Your task to perform on an android device: Open network settings Image 0: 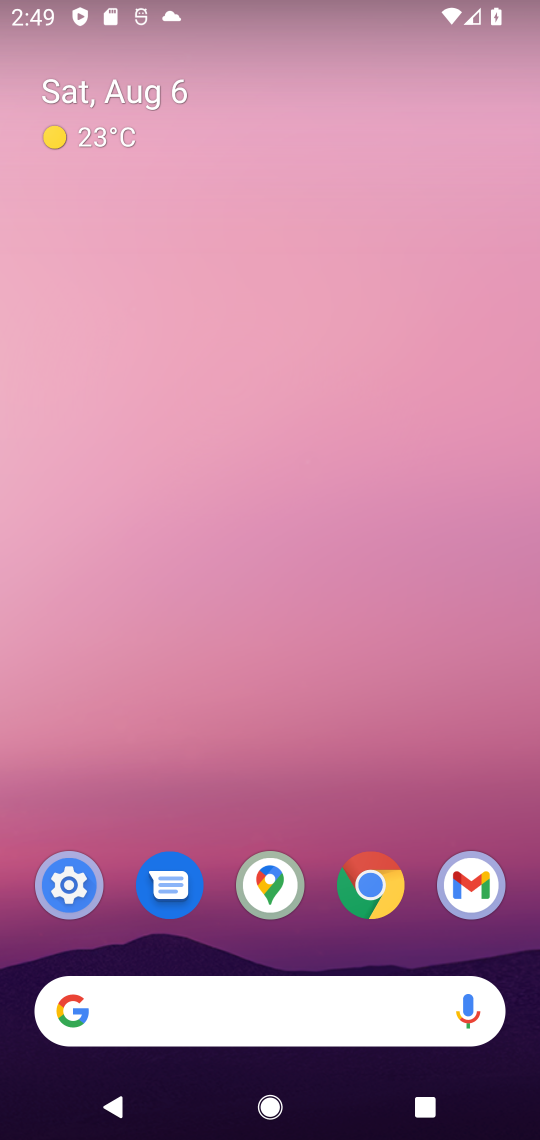
Step 0: drag from (438, 840) to (171, 10)
Your task to perform on an android device: Open network settings Image 1: 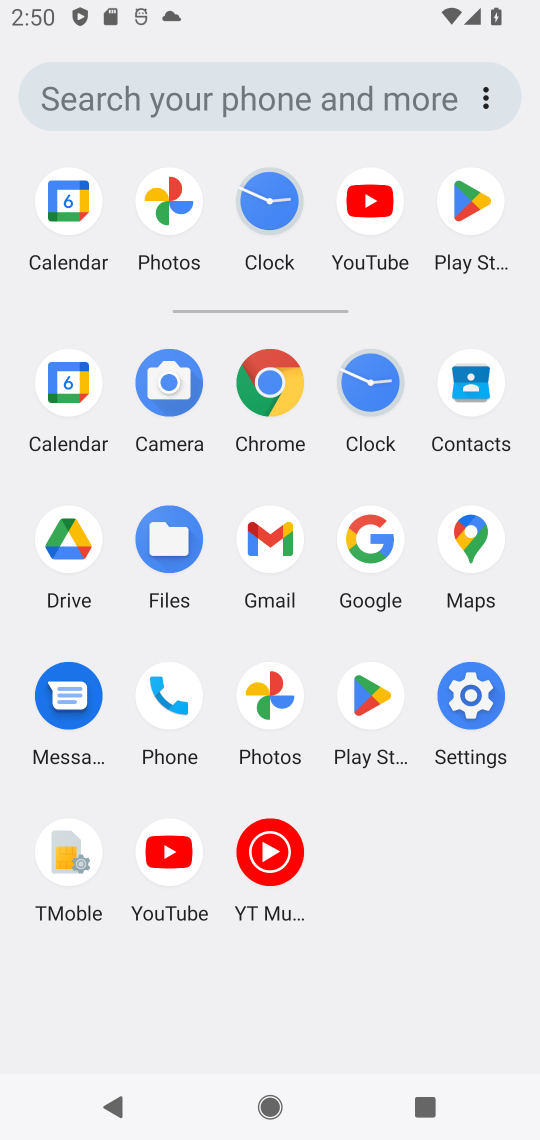
Step 1: click (468, 719)
Your task to perform on an android device: Open network settings Image 2: 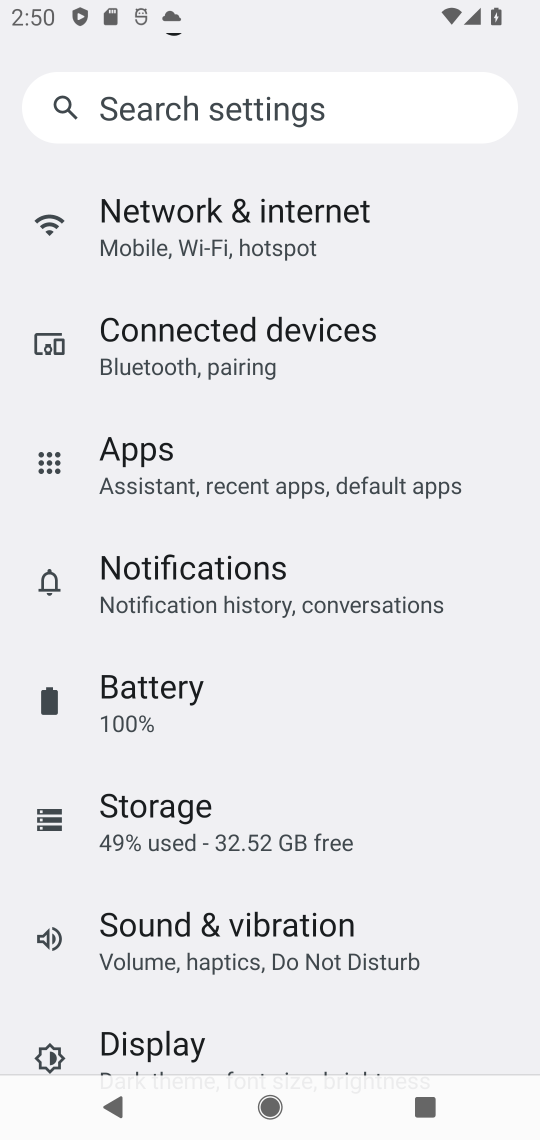
Step 2: click (249, 246)
Your task to perform on an android device: Open network settings Image 3: 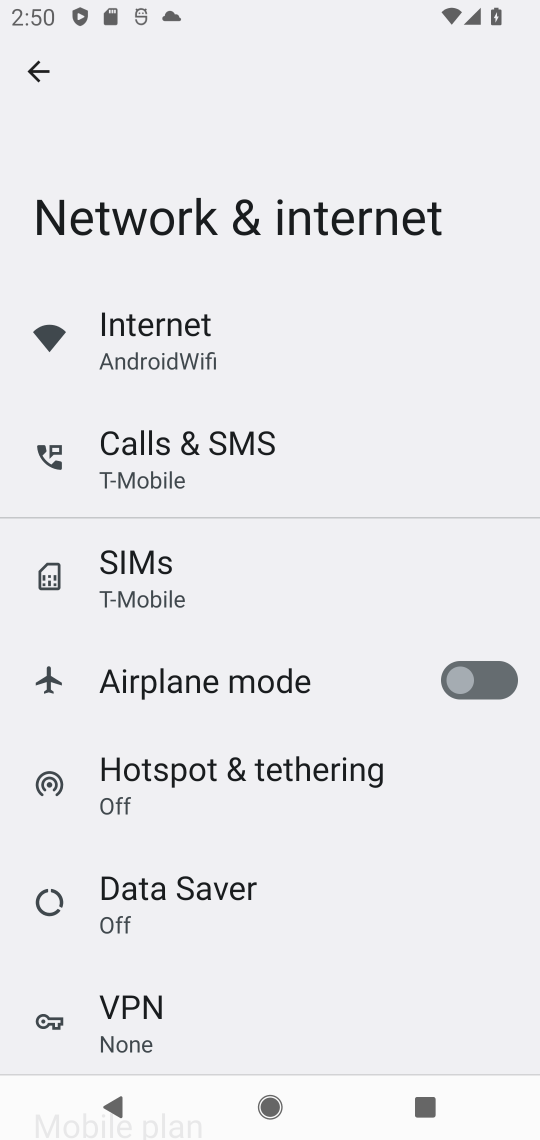
Step 3: task complete